Your task to perform on an android device: Open Youtube and go to "Your channel" Image 0: 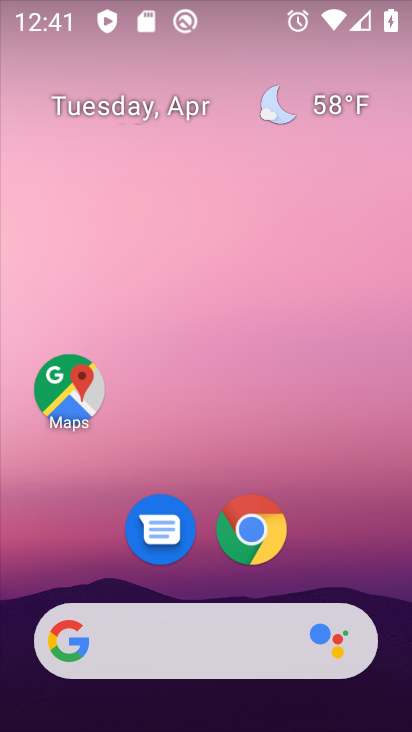
Step 0: drag from (390, 608) to (259, 154)
Your task to perform on an android device: Open Youtube and go to "Your channel" Image 1: 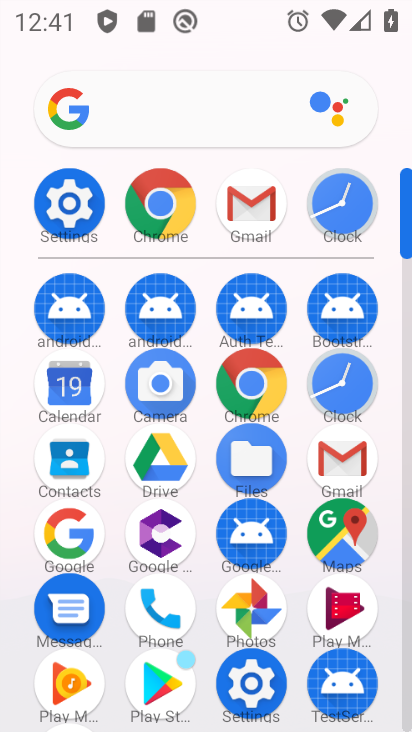
Step 1: click (407, 728)
Your task to perform on an android device: Open Youtube and go to "Your channel" Image 2: 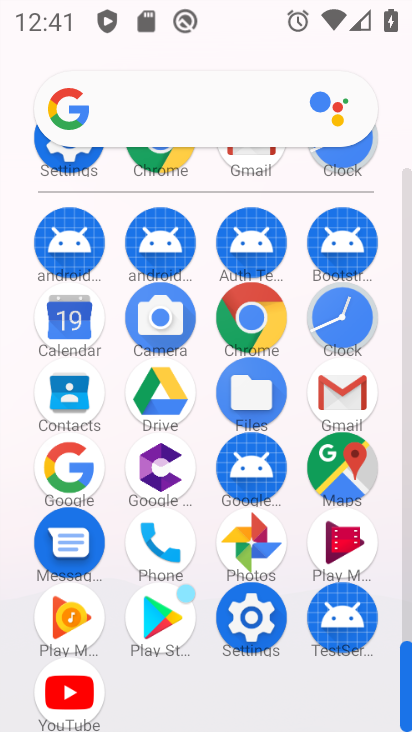
Step 2: click (59, 692)
Your task to perform on an android device: Open Youtube and go to "Your channel" Image 3: 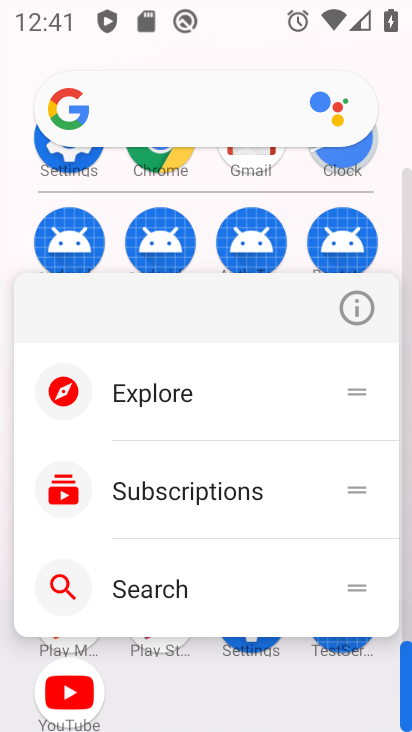
Step 3: click (58, 691)
Your task to perform on an android device: Open Youtube and go to "Your channel" Image 4: 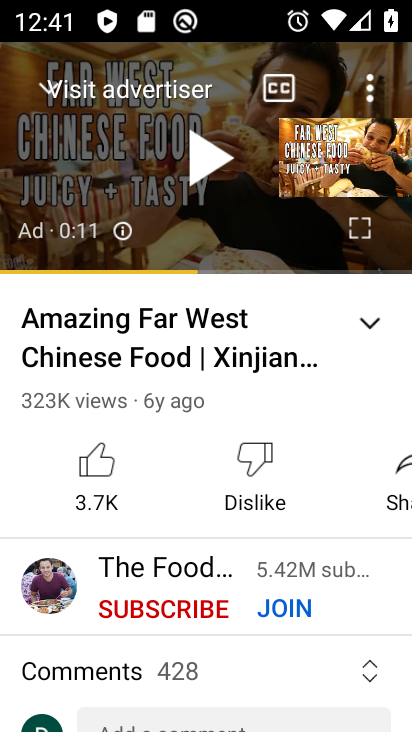
Step 4: press back button
Your task to perform on an android device: Open Youtube and go to "Your channel" Image 5: 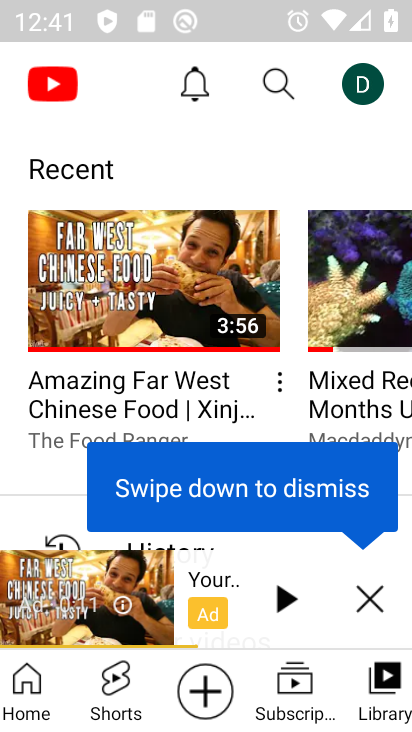
Step 5: click (366, 598)
Your task to perform on an android device: Open Youtube and go to "Your channel" Image 6: 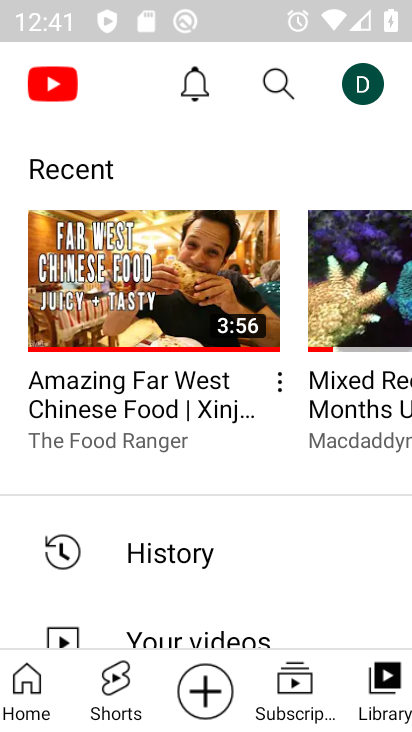
Step 6: click (351, 94)
Your task to perform on an android device: Open Youtube and go to "Your channel" Image 7: 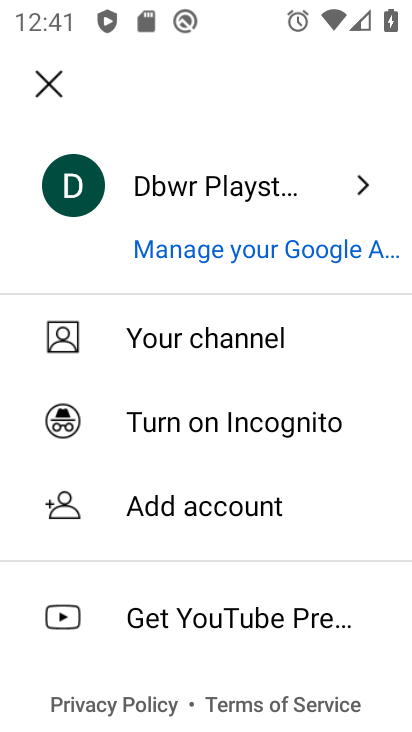
Step 7: click (127, 323)
Your task to perform on an android device: Open Youtube and go to "Your channel" Image 8: 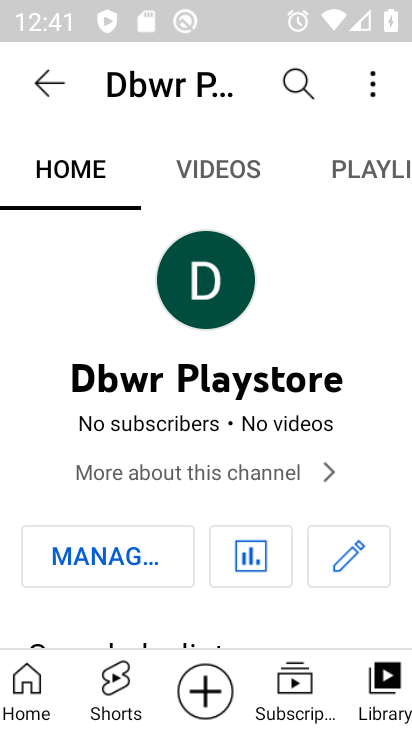
Step 8: task complete